Your task to perform on an android device: Go to ESPN.com Image 0: 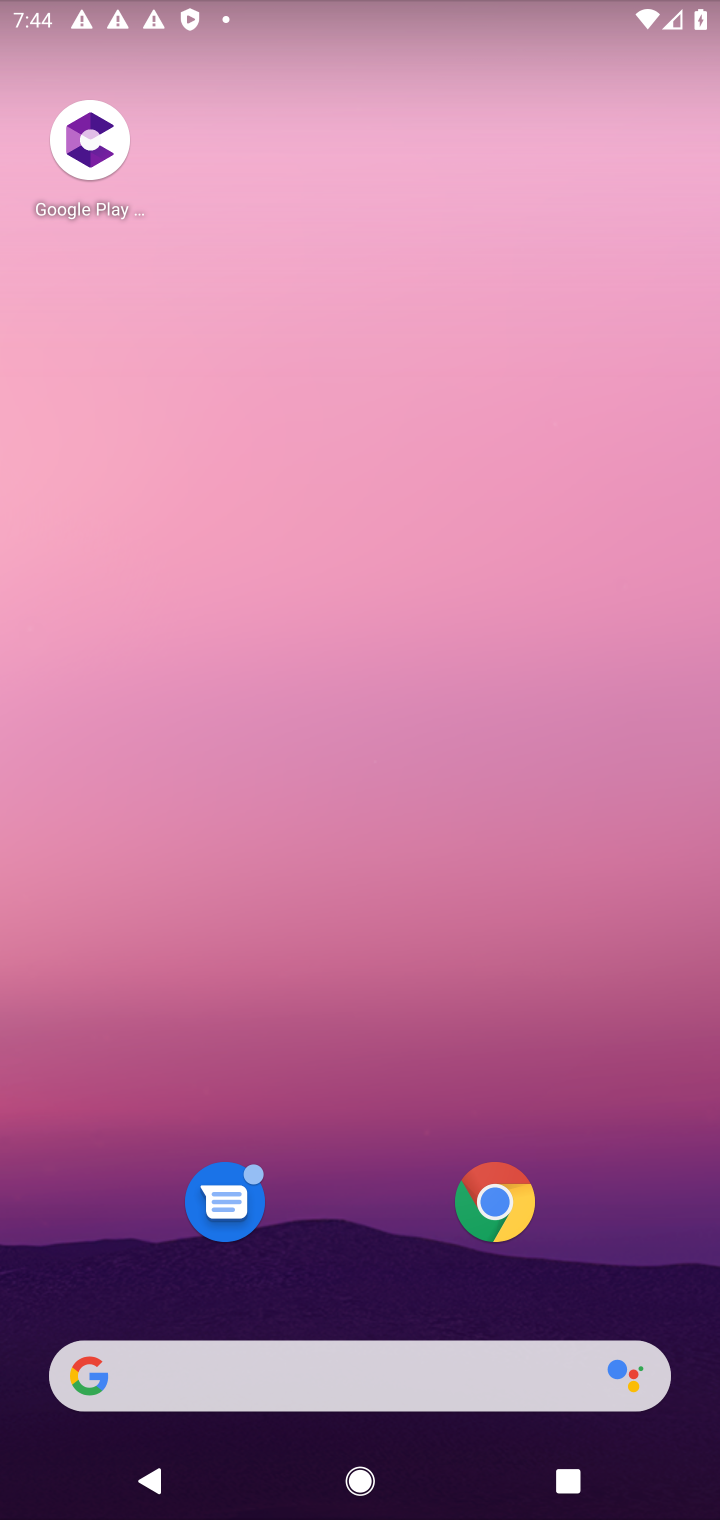
Step 0: drag from (643, 1152) to (306, 0)
Your task to perform on an android device: Go to ESPN.com Image 1: 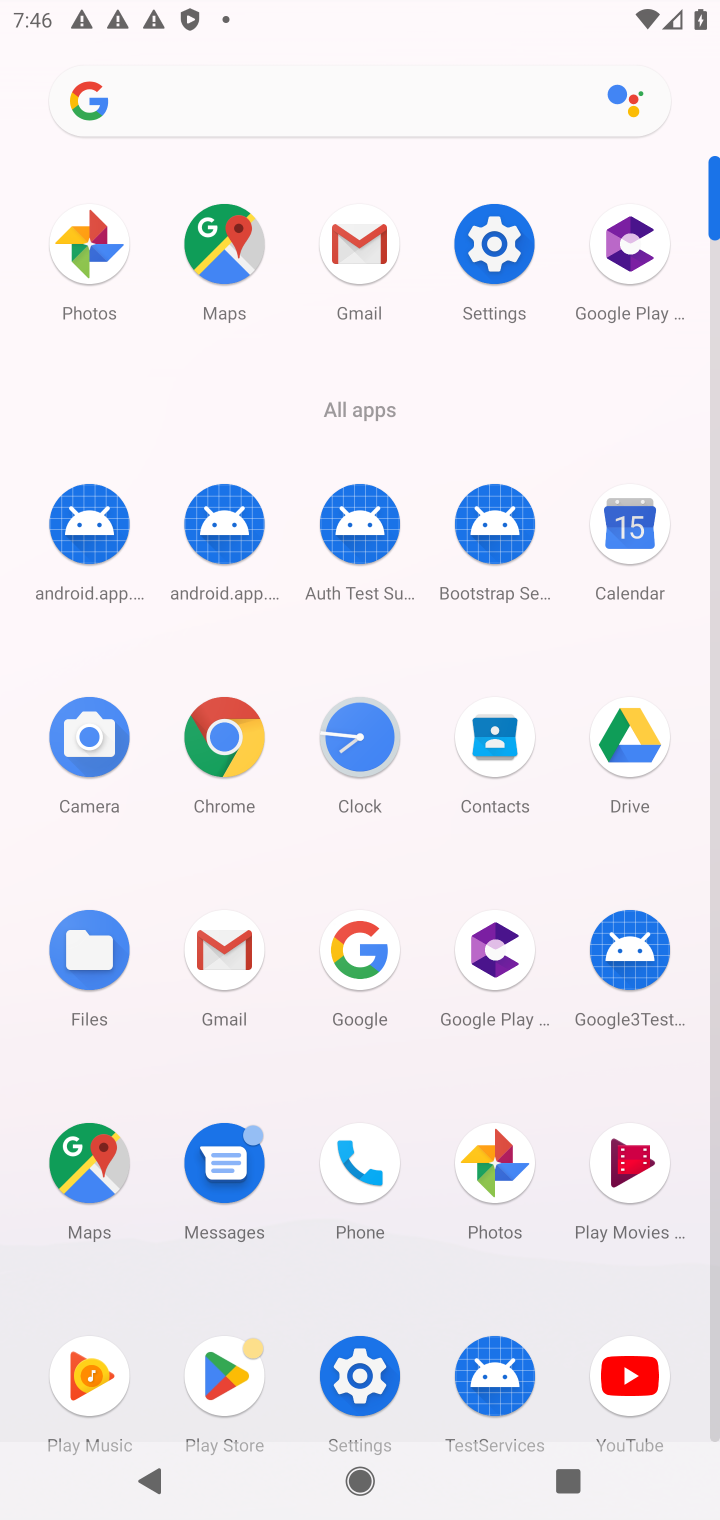
Step 1: click (344, 967)
Your task to perform on an android device: Go to ESPN.com Image 2: 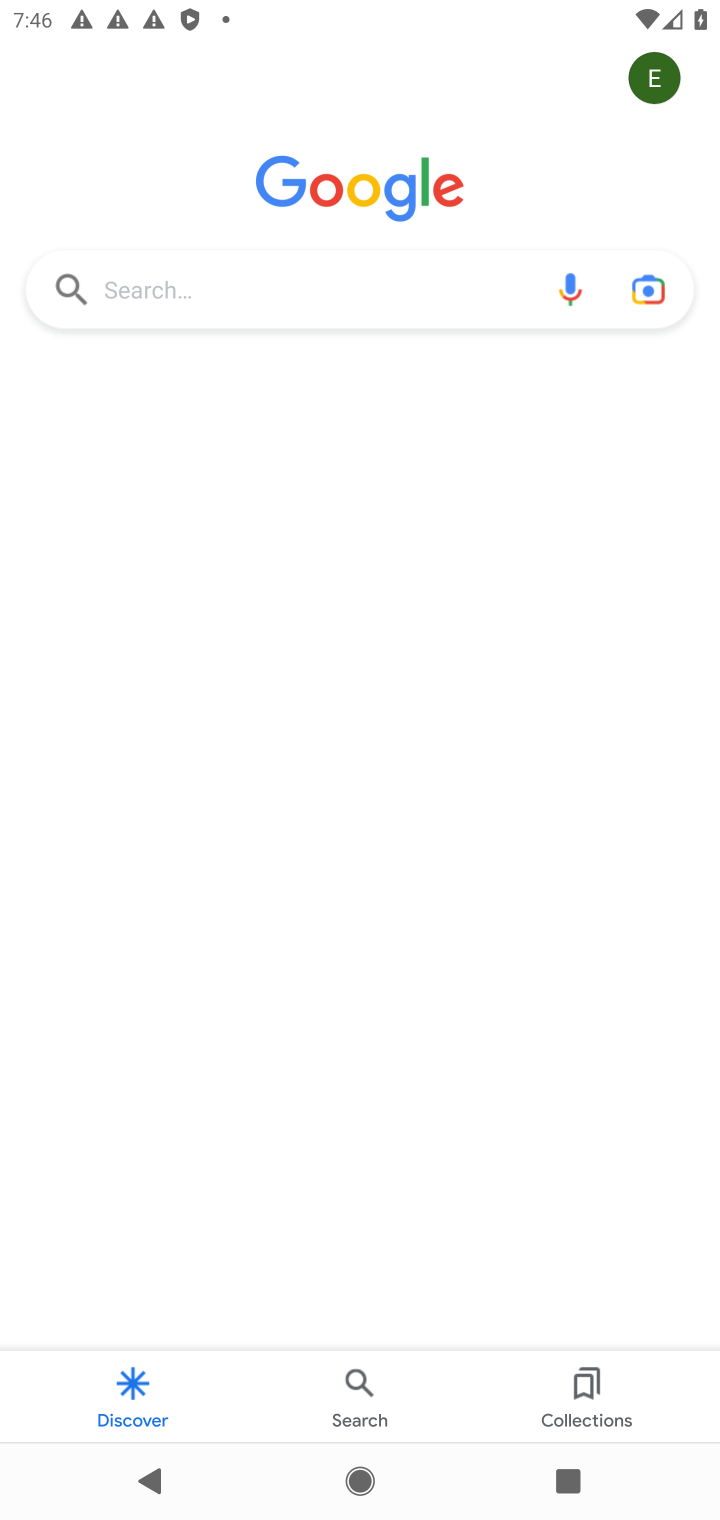
Step 2: click (258, 297)
Your task to perform on an android device: Go to ESPN.com Image 3: 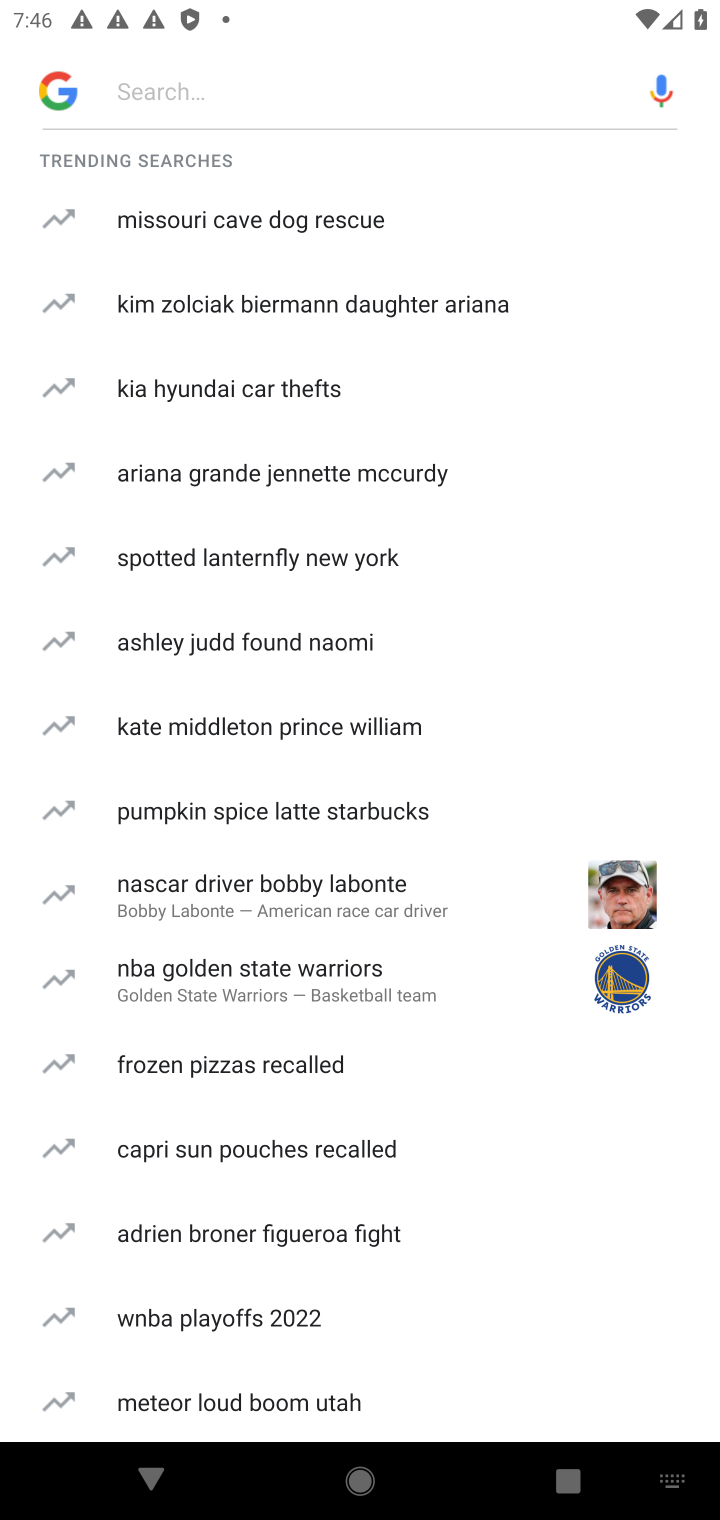
Step 3: type "ESPN.com"
Your task to perform on an android device: Go to ESPN.com Image 4: 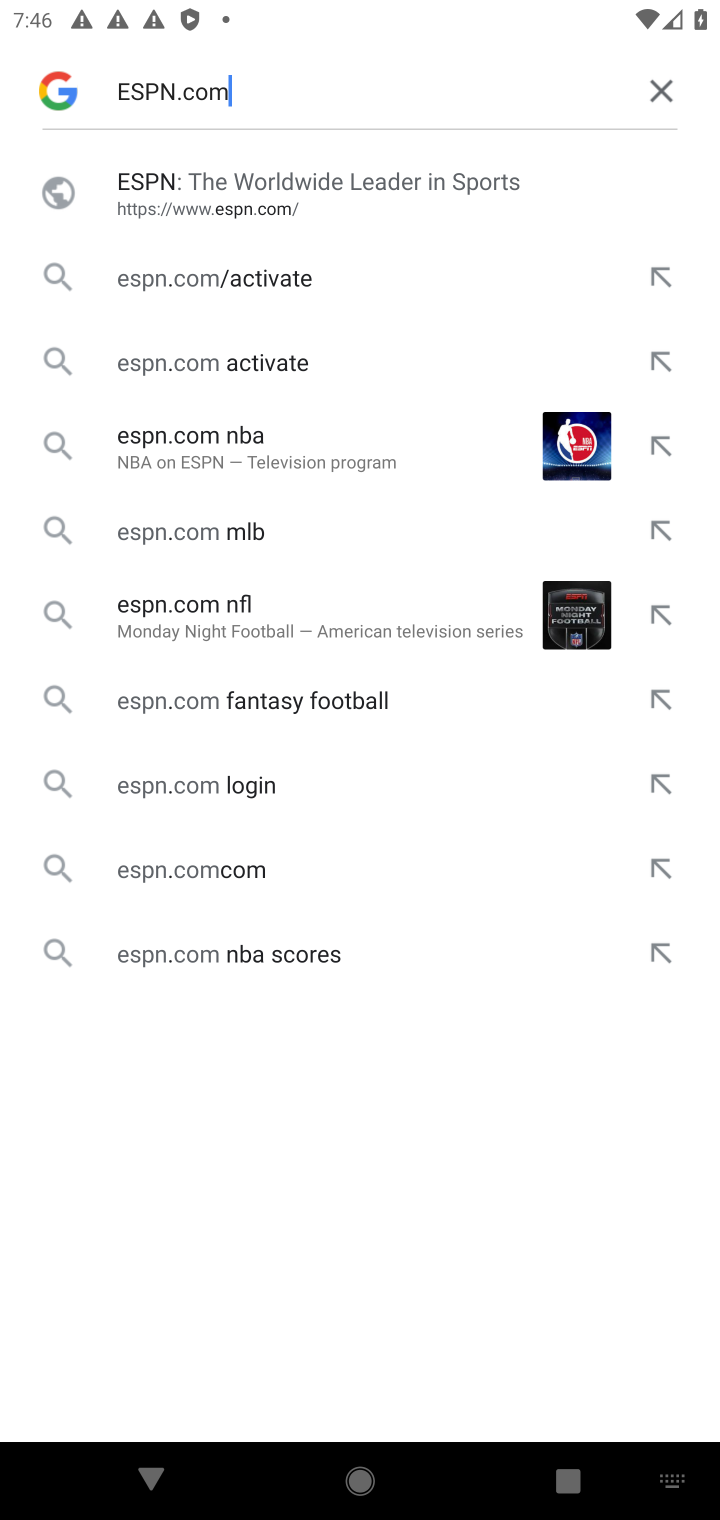
Step 4: click (227, 193)
Your task to perform on an android device: Go to ESPN.com Image 5: 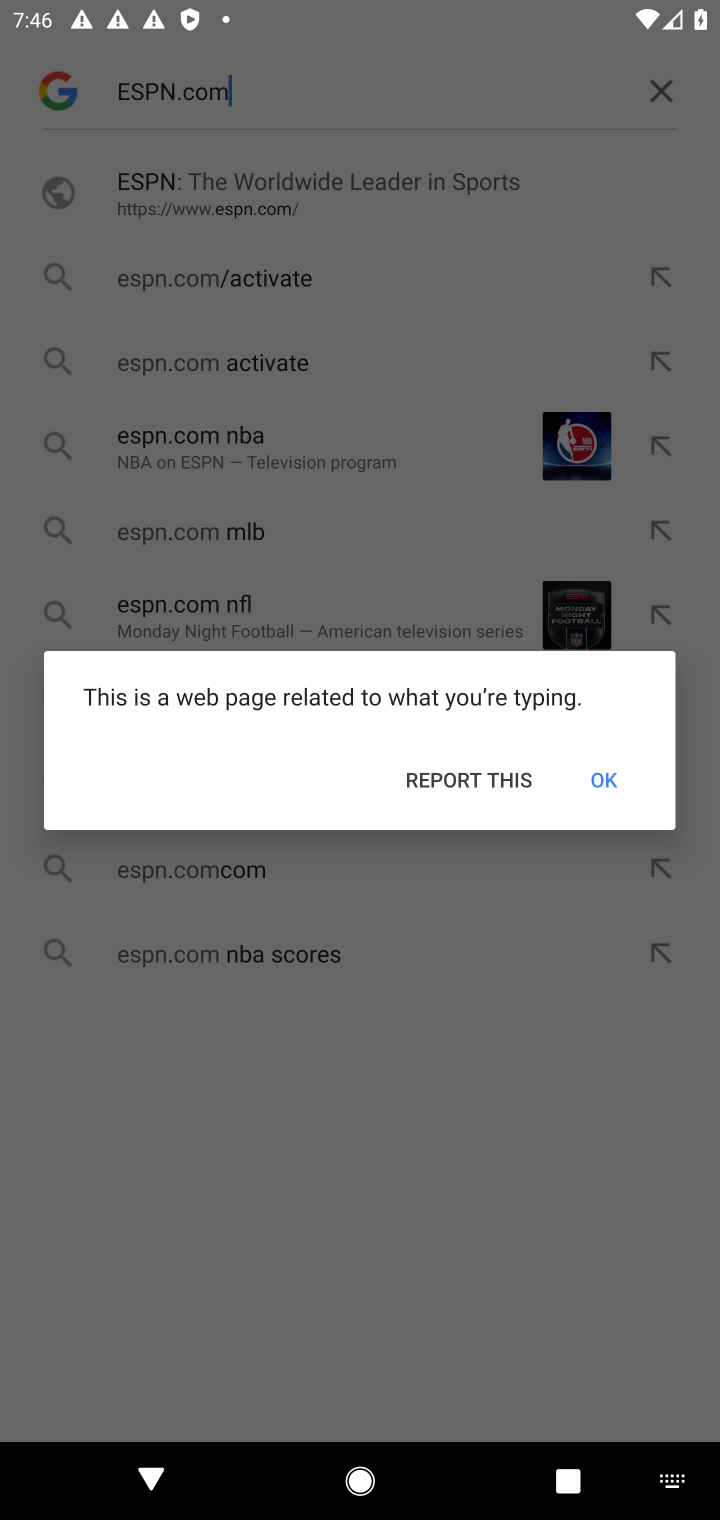
Step 5: click (609, 766)
Your task to perform on an android device: Go to ESPN.com Image 6: 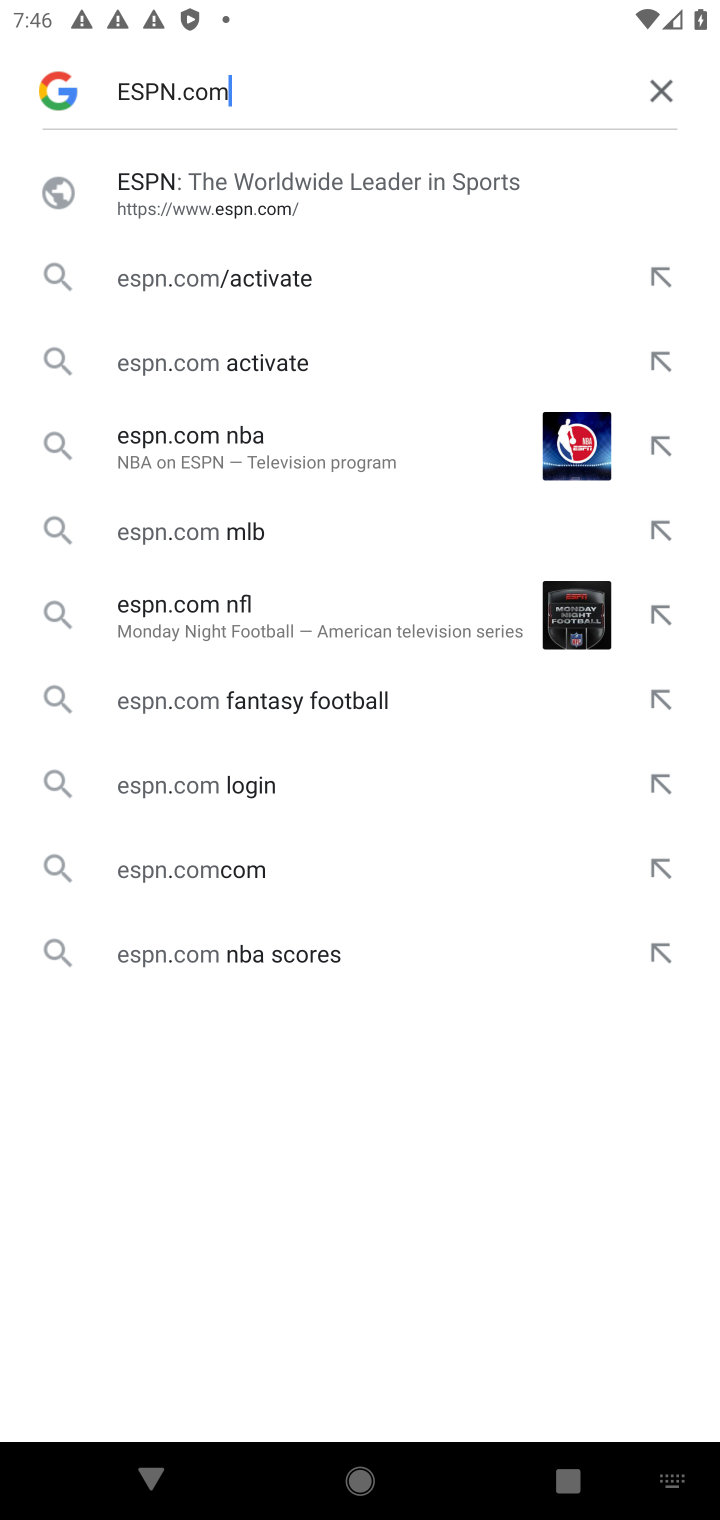
Step 6: click (177, 198)
Your task to perform on an android device: Go to ESPN.com Image 7: 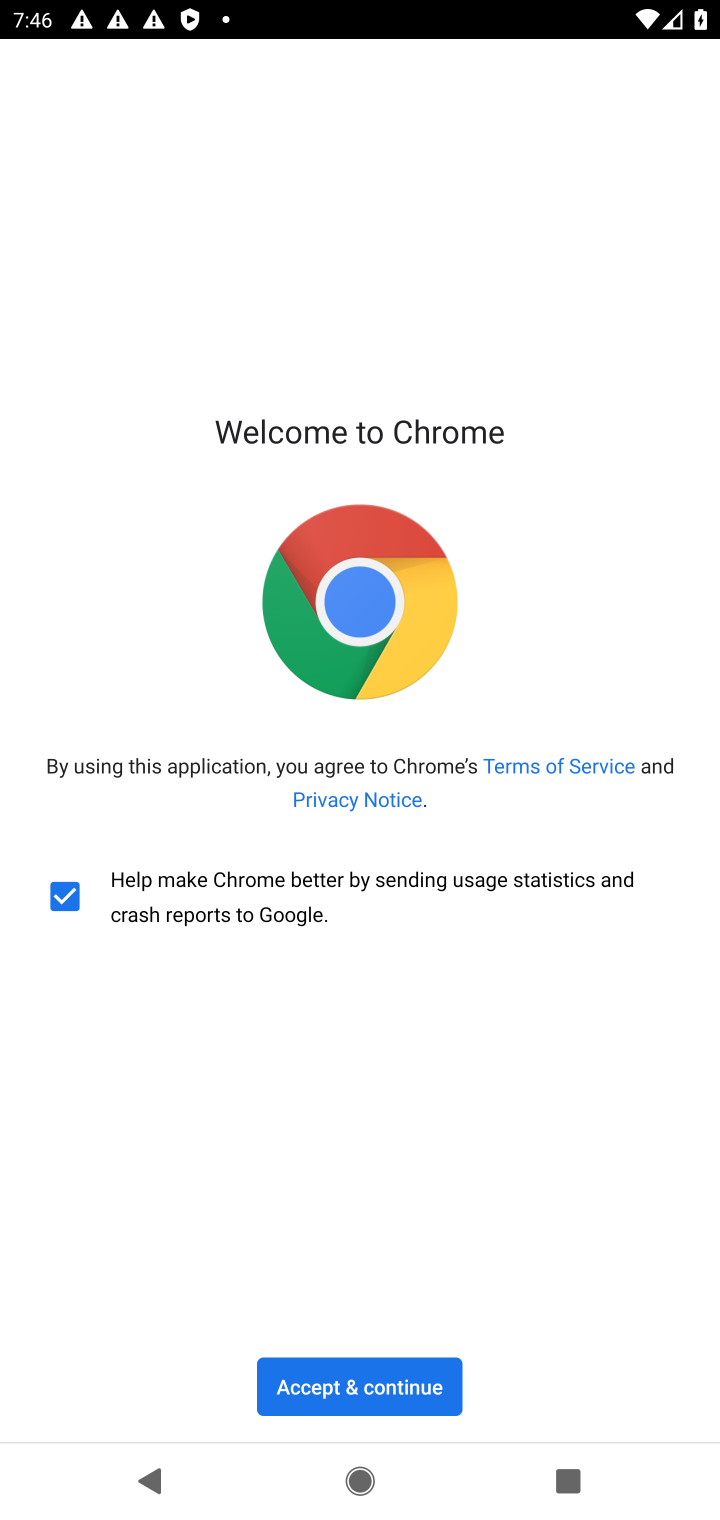
Step 7: click (350, 1379)
Your task to perform on an android device: Go to ESPN.com Image 8: 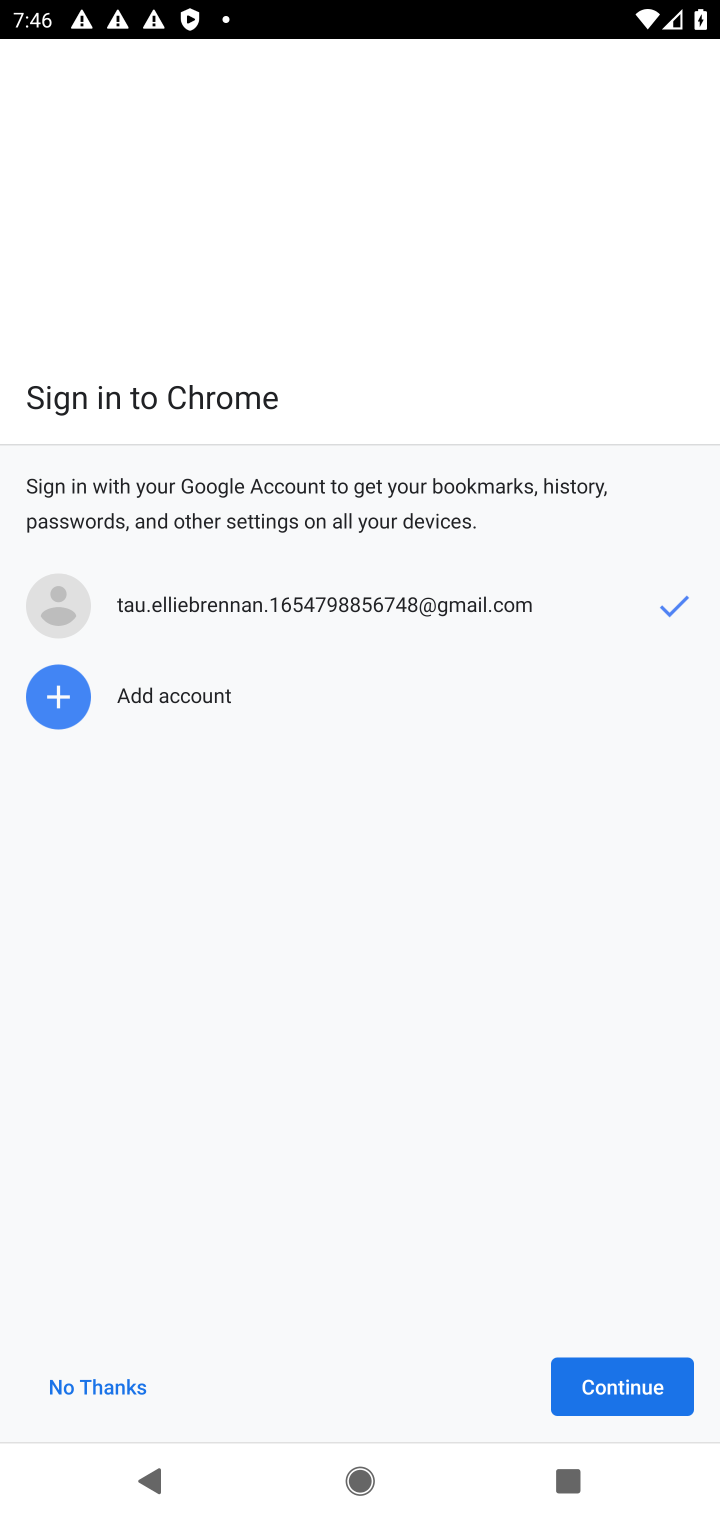
Step 8: click (592, 1407)
Your task to perform on an android device: Go to ESPN.com Image 9: 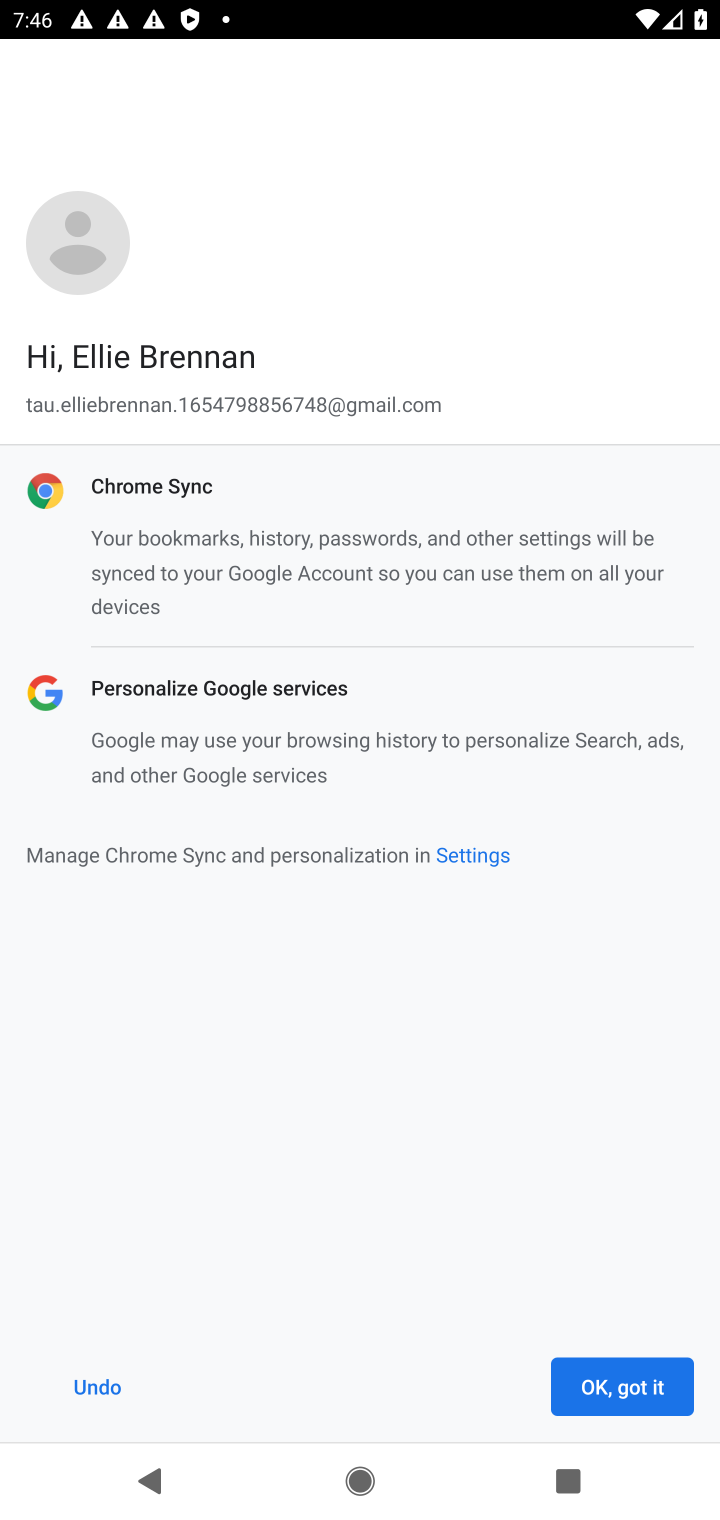
Step 9: click (621, 1384)
Your task to perform on an android device: Go to ESPN.com Image 10: 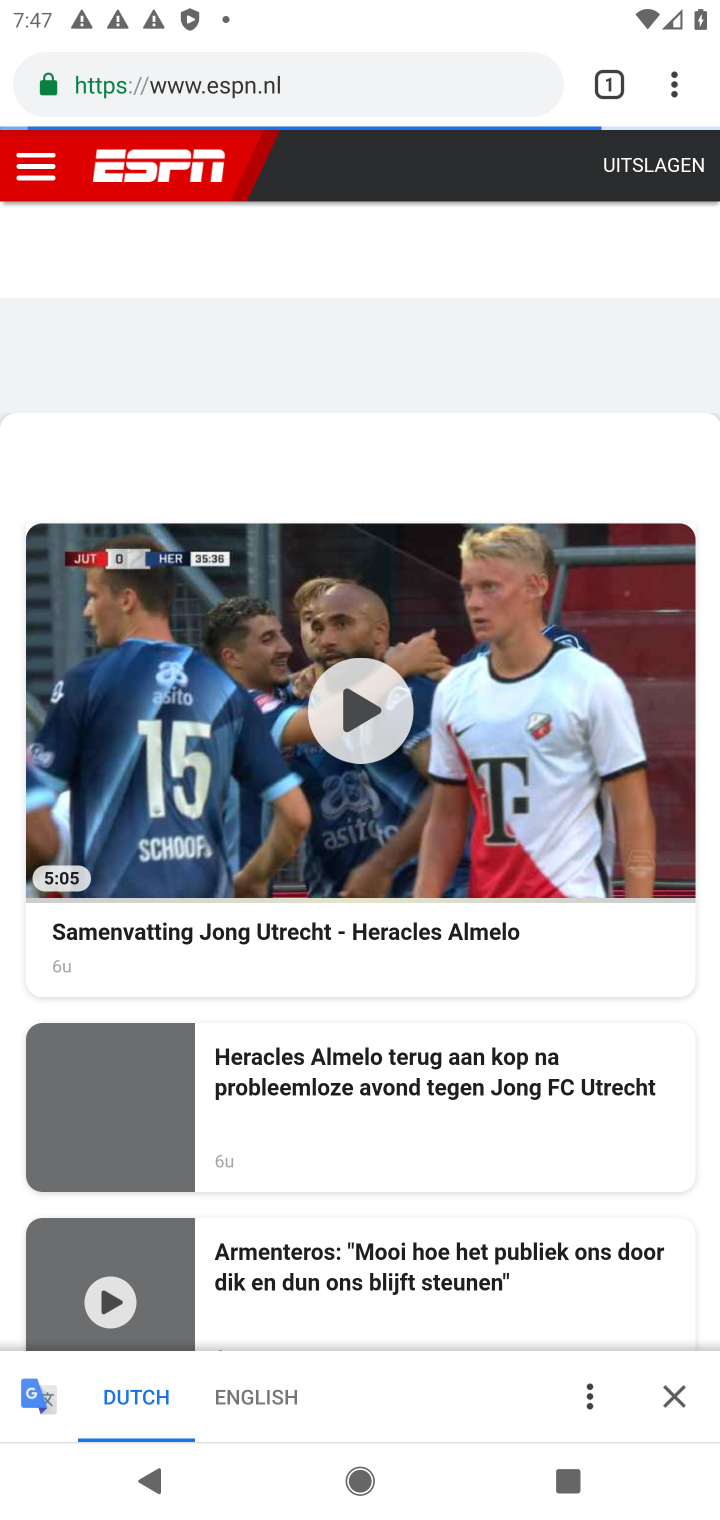
Step 10: task complete